Your task to perform on an android device: see creations saved in the google photos Image 0: 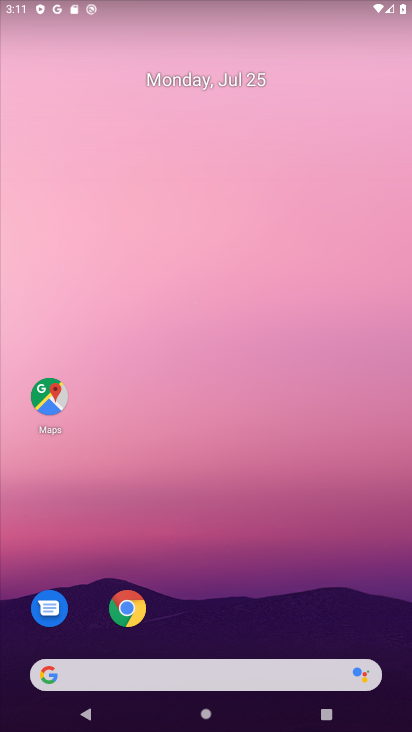
Step 0: drag from (42, 546) to (242, 119)
Your task to perform on an android device: see creations saved in the google photos Image 1: 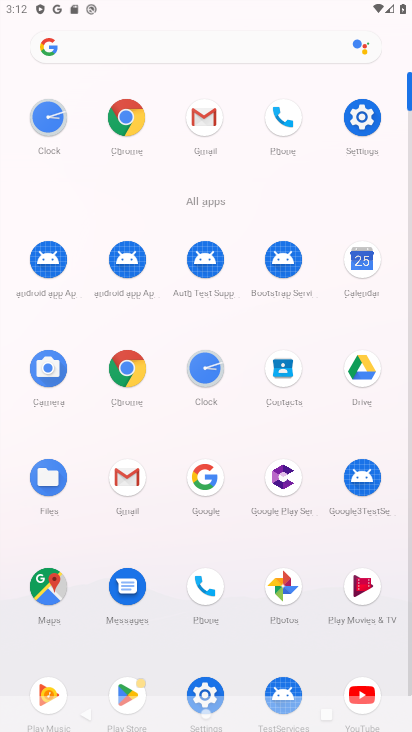
Step 1: click (276, 583)
Your task to perform on an android device: see creations saved in the google photos Image 2: 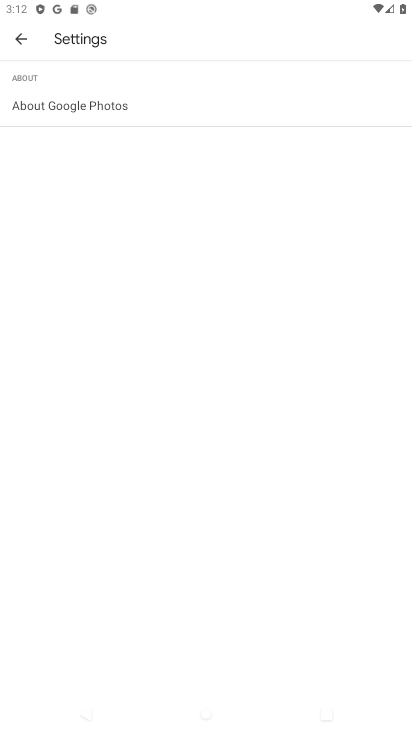
Step 2: click (15, 40)
Your task to perform on an android device: see creations saved in the google photos Image 3: 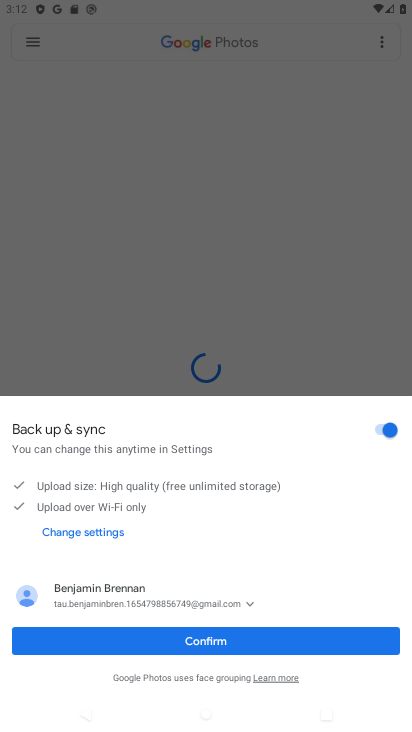
Step 3: click (187, 637)
Your task to perform on an android device: see creations saved in the google photos Image 4: 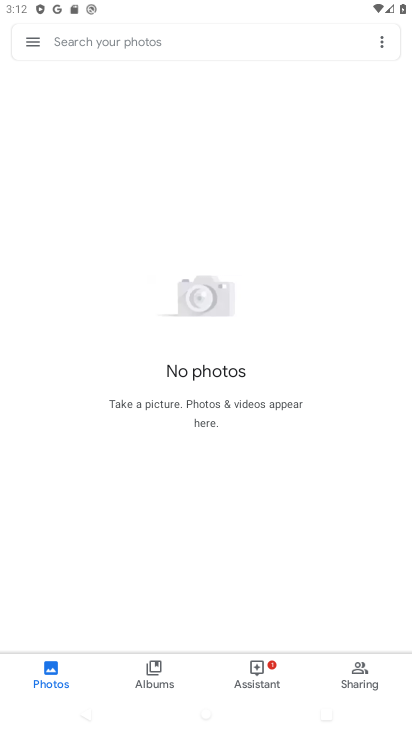
Step 4: click (152, 36)
Your task to perform on an android device: see creations saved in the google photos Image 5: 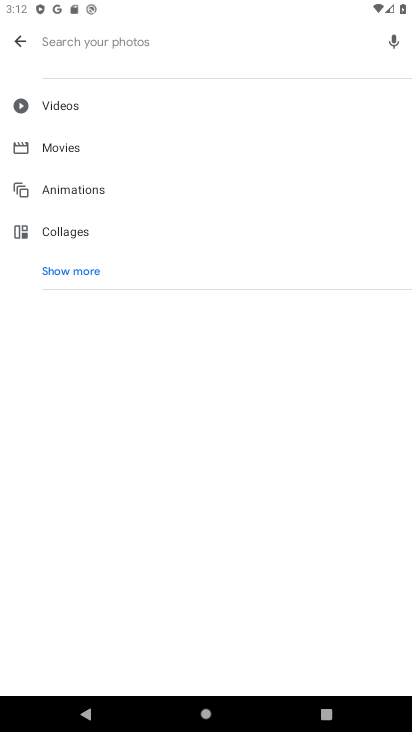
Step 5: click (54, 266)
Your task to perform on an android device: see creations saved in the google photos Image 6: 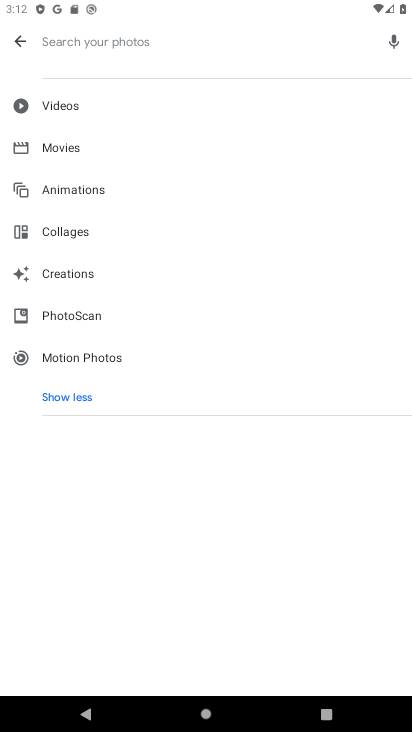
Step 6: click (79, 271)
Your task to perform on an android device: see creations saved in the google photos Image 7: 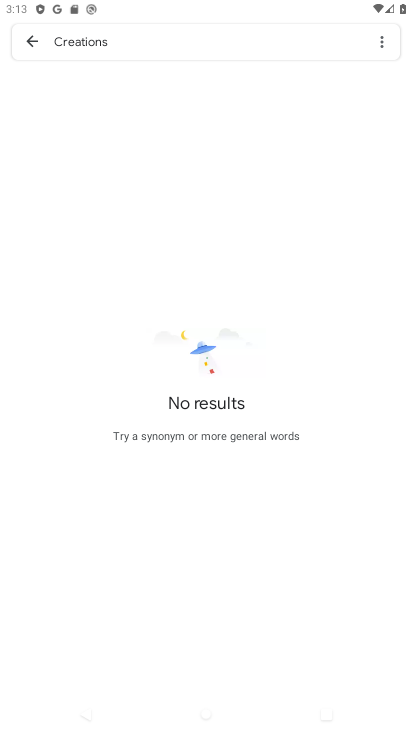
Step 7: task complete